Your task to perform on an android device: Search for vegetarian restaurants on Maps Image 0: 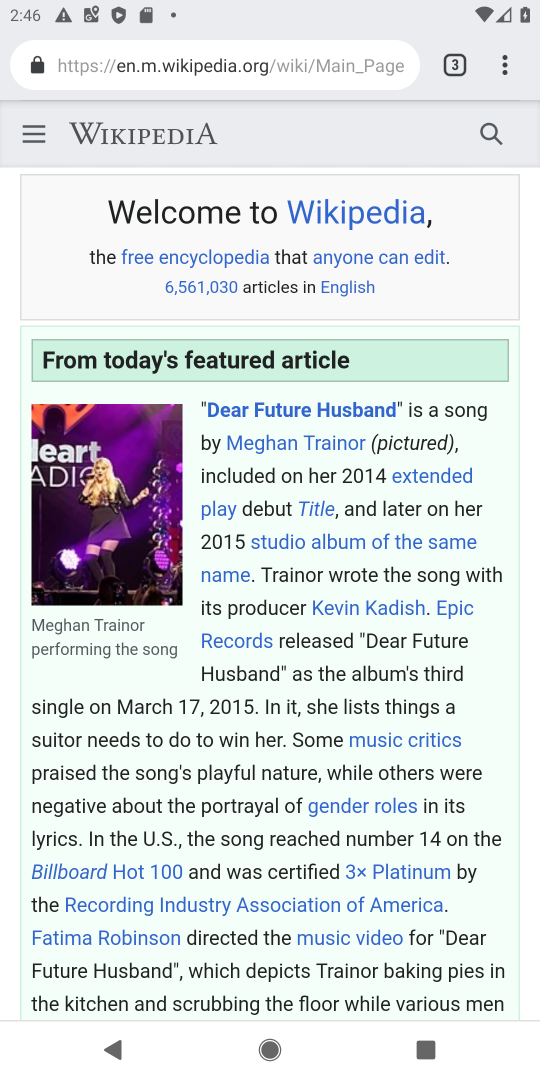
Step 0: press back button
Your task to perform on an android device: Search for vegetarian restaurants on Maps Image 1: 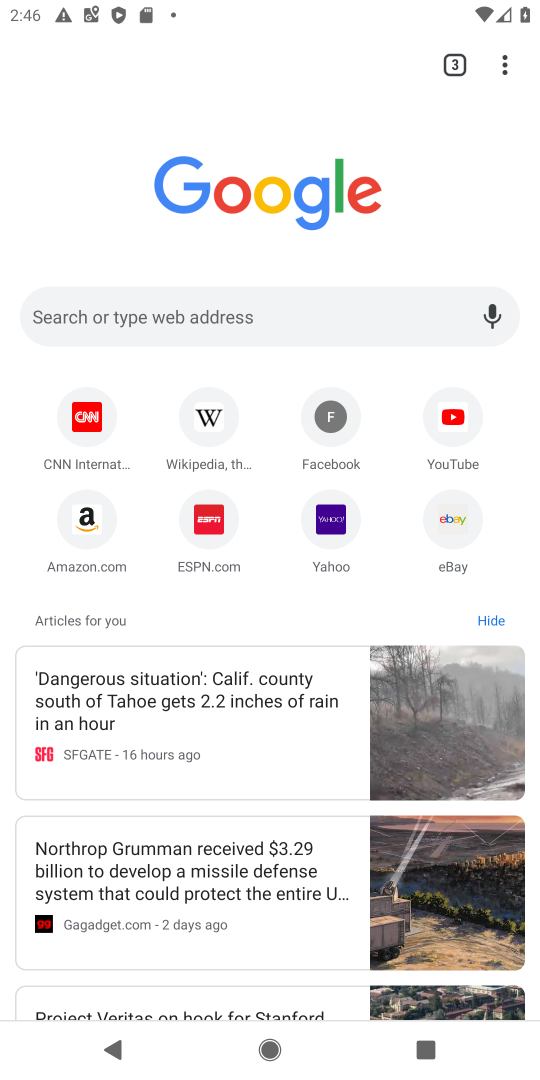
Step 1: press back button
Your task to perform on an android device: Search for vegetarian restaurants on Maps Image 2: 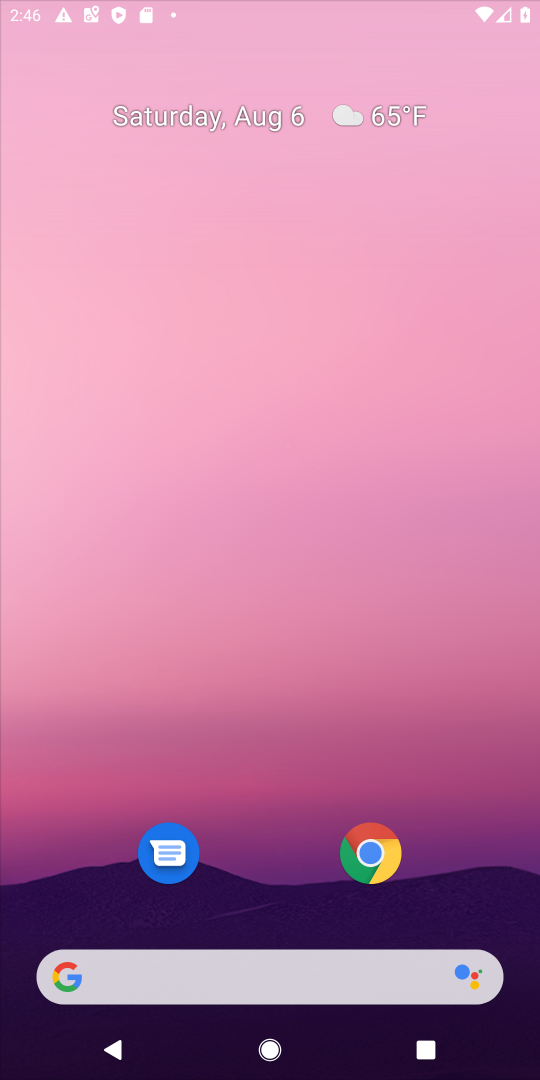
Step 2: press back button
Your task to perform on an android device: Search for vegetarian restaurants on Maps Image 3: 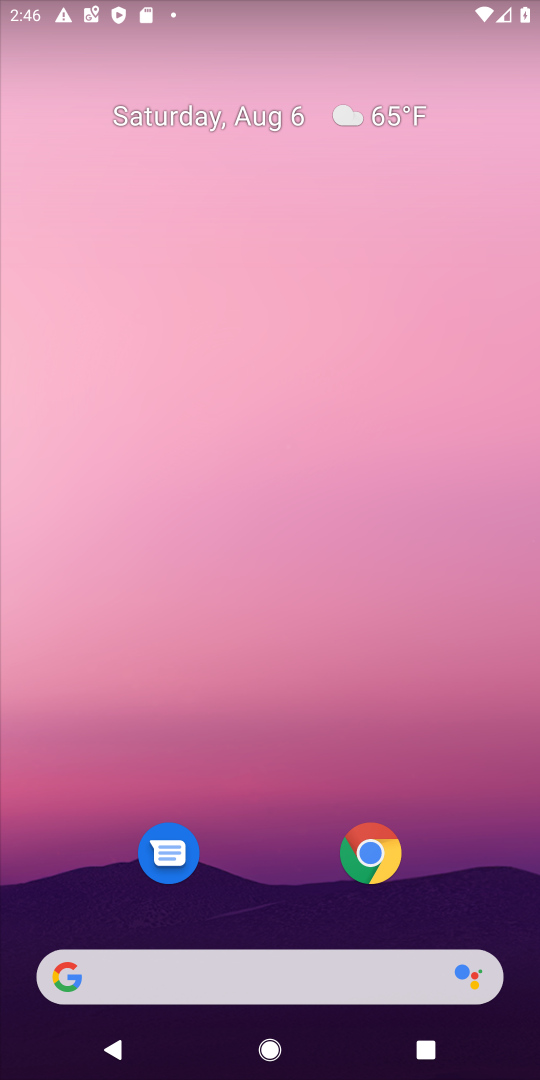
Step 3: drag from (295, 891) to (332, 150)
Your task to perform on an android device: Search for vegetarian restaurants on Maps Image 4: 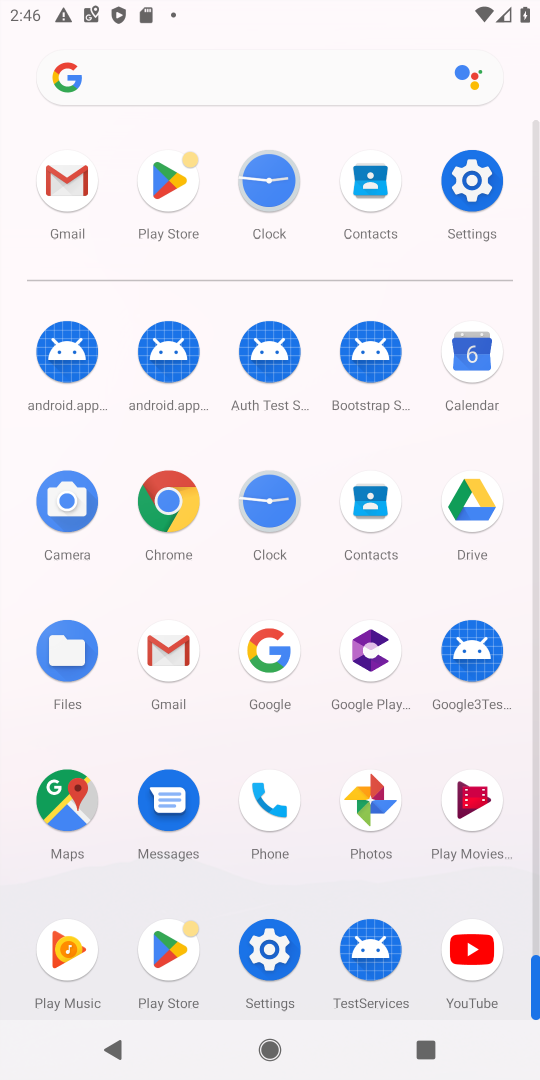
Step 4: click (62, 821)
Your task to perform on an android device: Search for vegetarian restaurants on Maps Image 5: 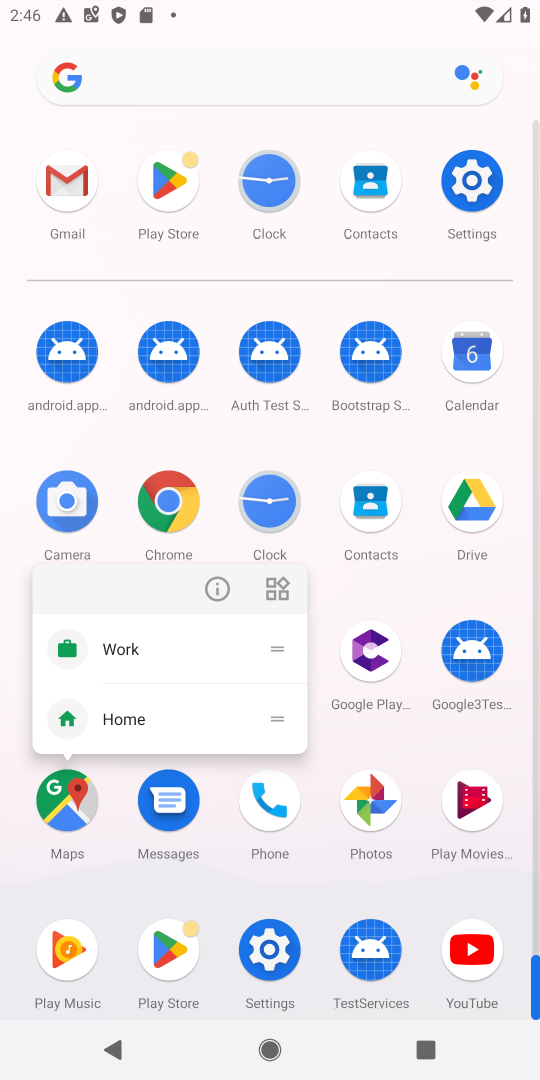
Step 5: click (61, 801)
Your task to perform on an android device: Search for vegetarian restaurants on Maps Image 6: 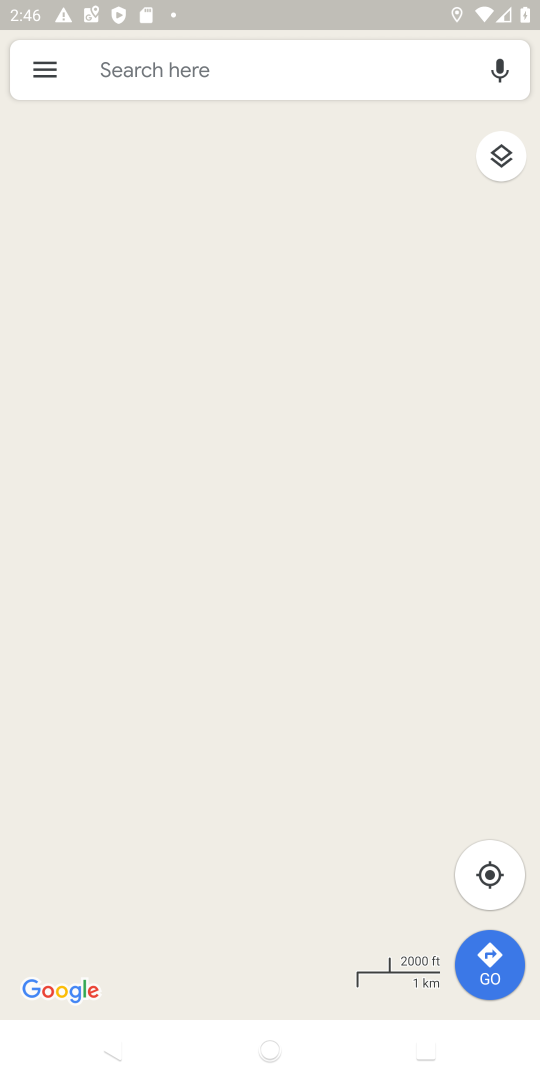
Step 6: click (258, 74)
Your task to perform on an android device: Search for vegetarian restaurants on Maps Image 7: 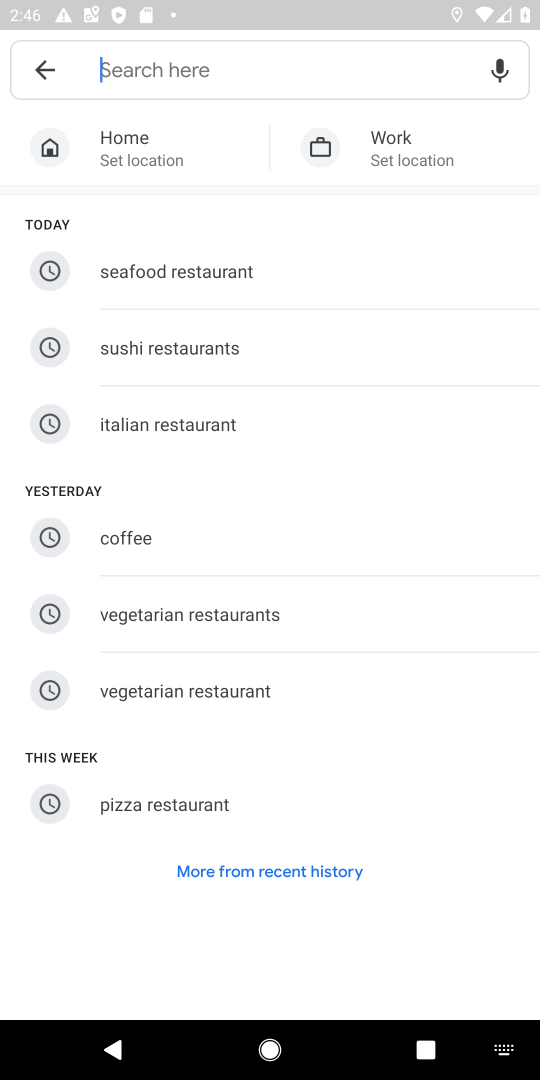
Step 7: click (252, 624)
Your task to perform on an android device: Search for vegetarian restaurants on Maps Image 8: 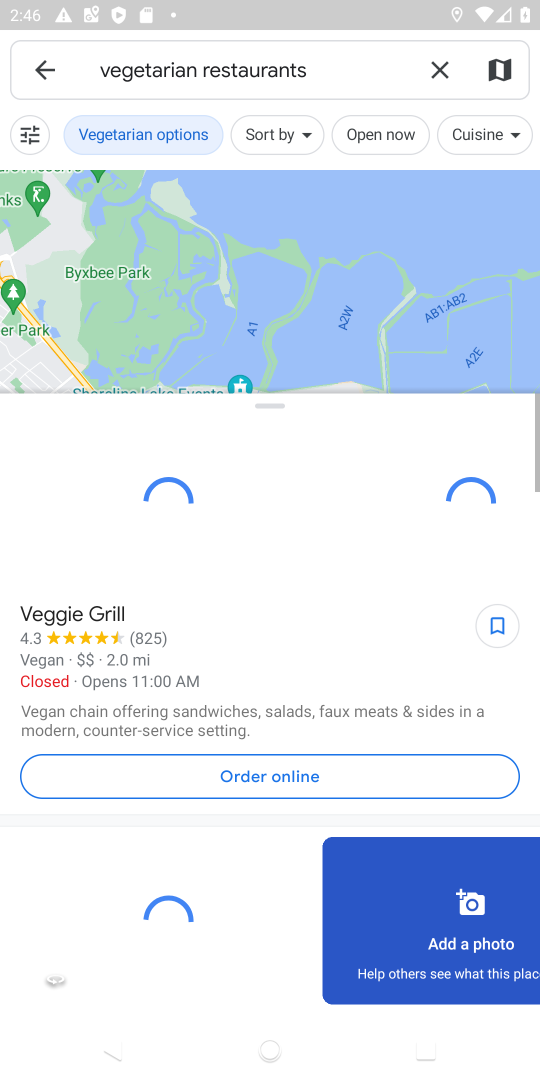
Step 8: task complete